Your task to perform on an android device: Is it going to rain today? Image 0: 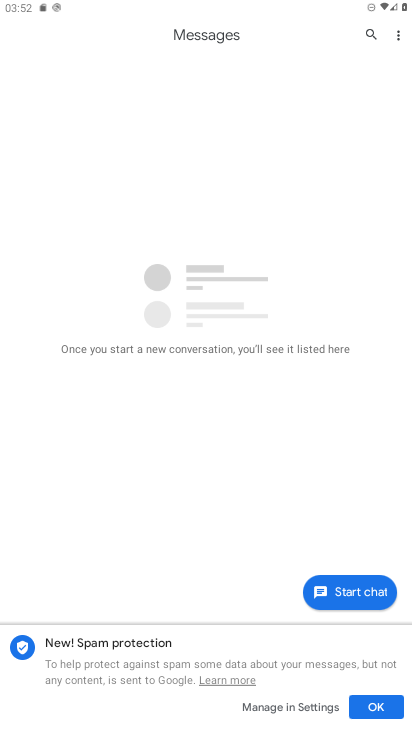
Step 0: press home button
Your task to perform on an android device: Is it going to rain today? Image 1: 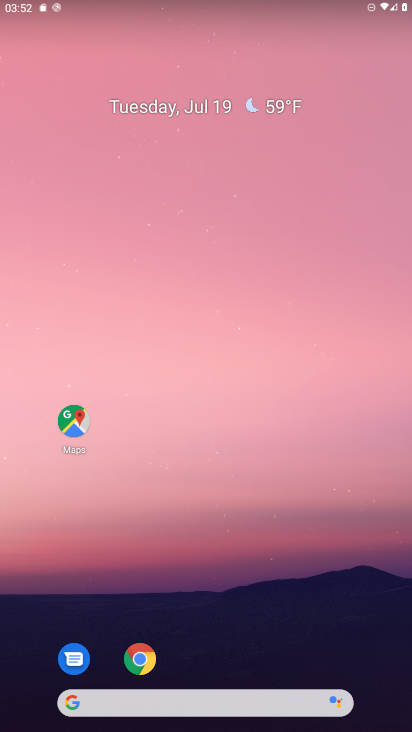
Step 1: drag from (180, 695) to (251, 103)
Your task to perform on an android device: Is it going to rain today? Image 2: 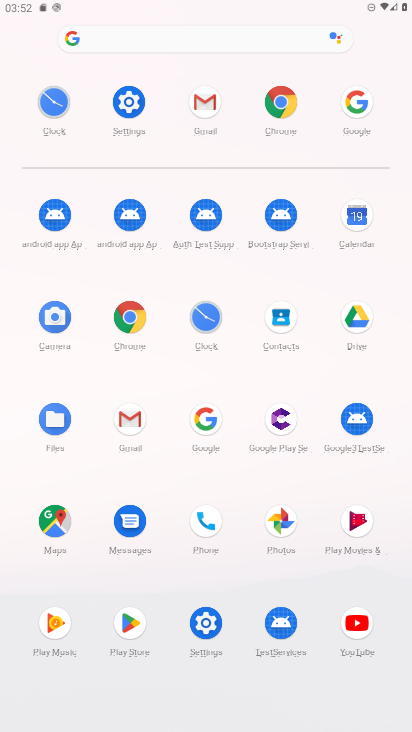
Step 2: click (355, 101)
Your task to perform on an android device: Is it going to rain today? Image 3: 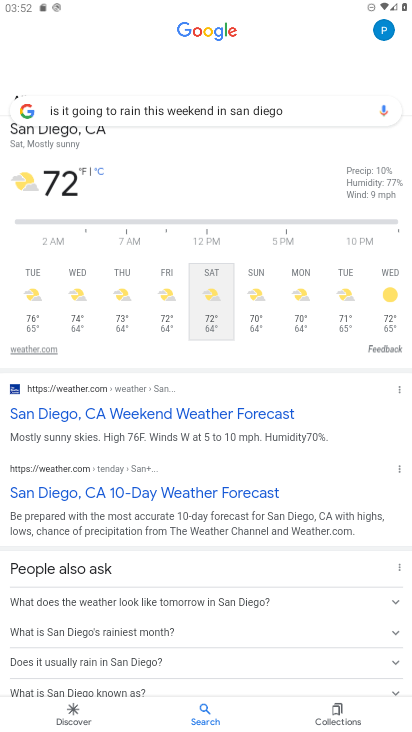
Step 3: click (327, 114)
Your task to perform on an android device: Is it going to rain today? Image 4: 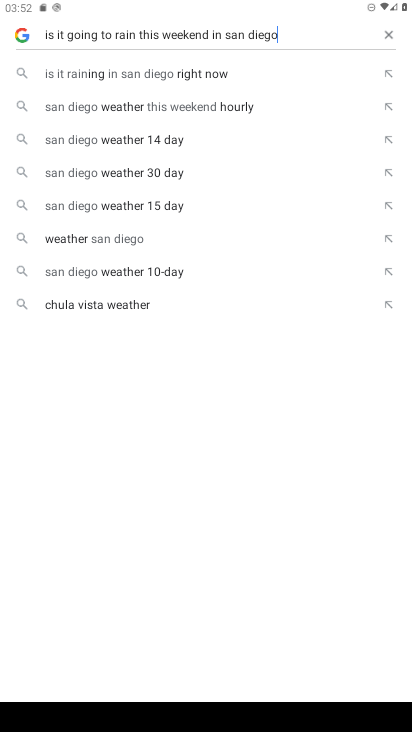
Step 4: click (388, 37)
Your task to perform on an android device: Is it going to rain today? Image 5: 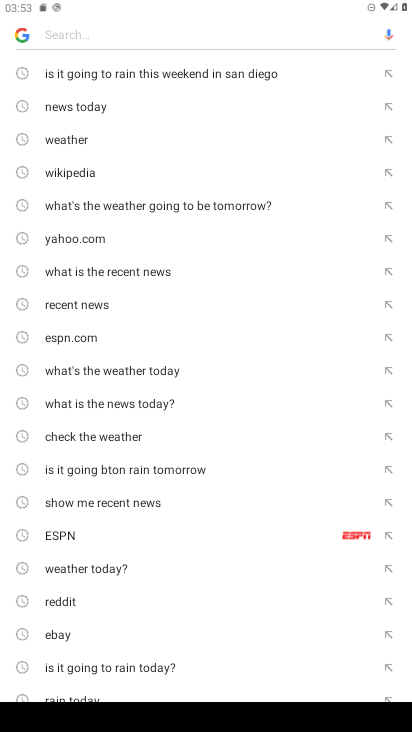
Step 5: type "Is it going to rain today?"
Your task to perform on an android device: Is it going to rain today? Image 6: 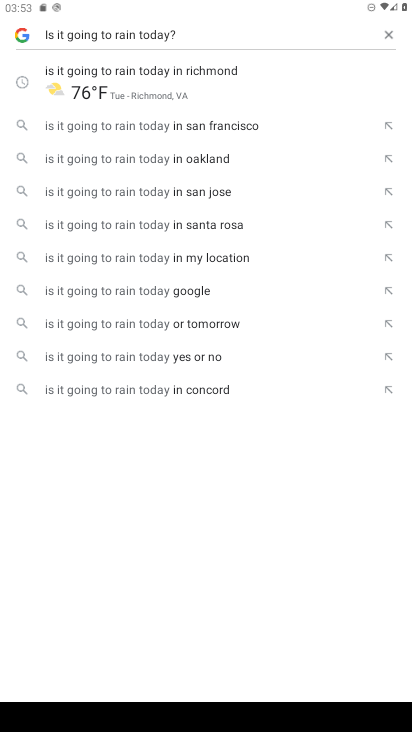
Step 6: click (147, 81)
Your task to perform on an android device: Is it going to rain today? Image 7: 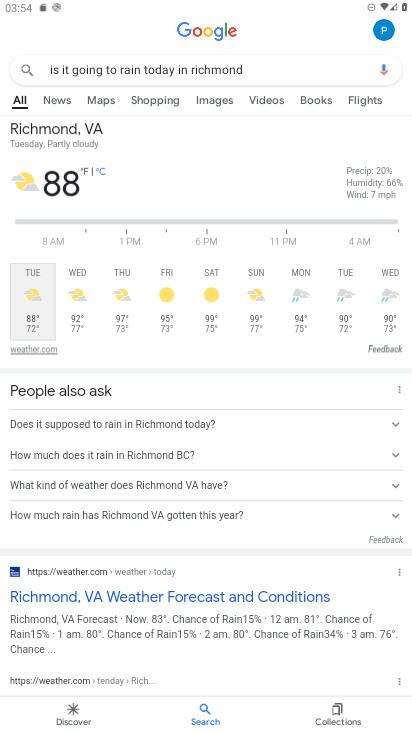
Step 7: task complete